Your task to perform on an android device: check battery use Image 0: 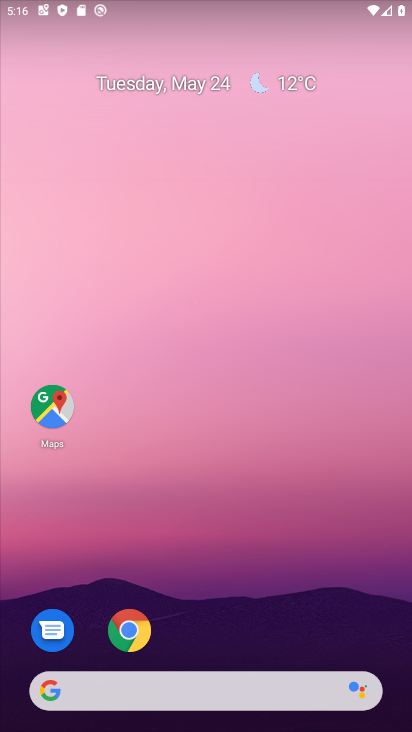
Step 0: press home button
Your task to perform on an android device: check battery use Image 1: 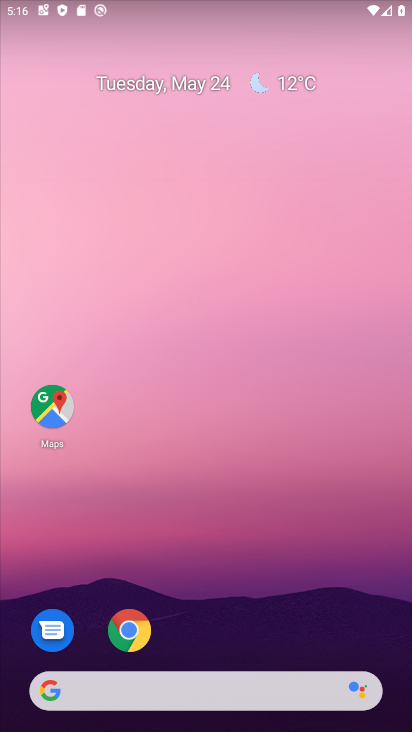
Step 1: drag from (193, 623) to (262, 4)
Your task to perform on an android device: check battery use Image 2: 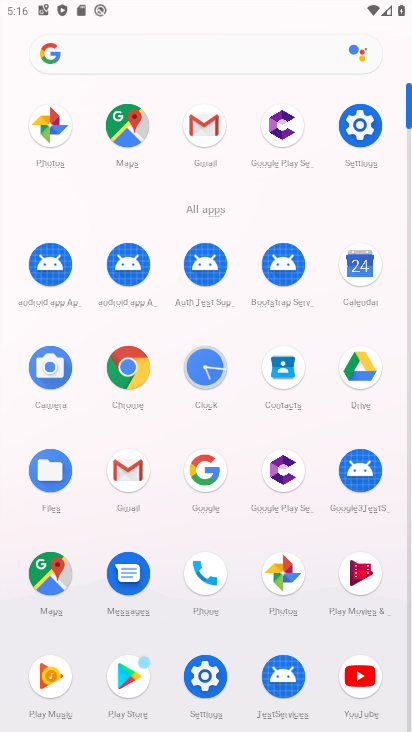
Step 2: click (361, 167)
Your task to perform on an android device: check battery use Image 3: 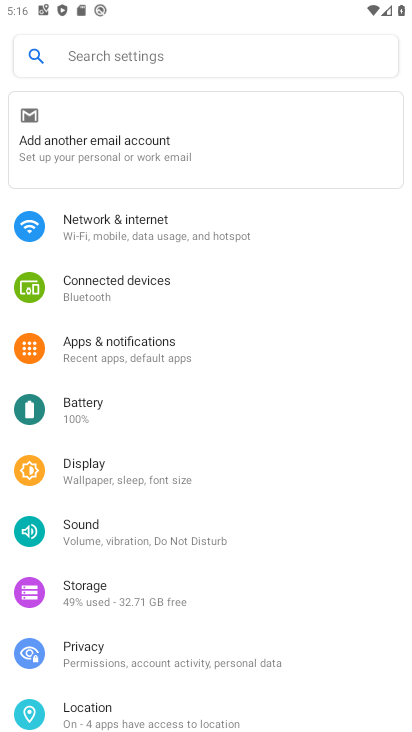
Step 3: click (99, 423)
Your task to perform on an android device: check battery use Image 4: 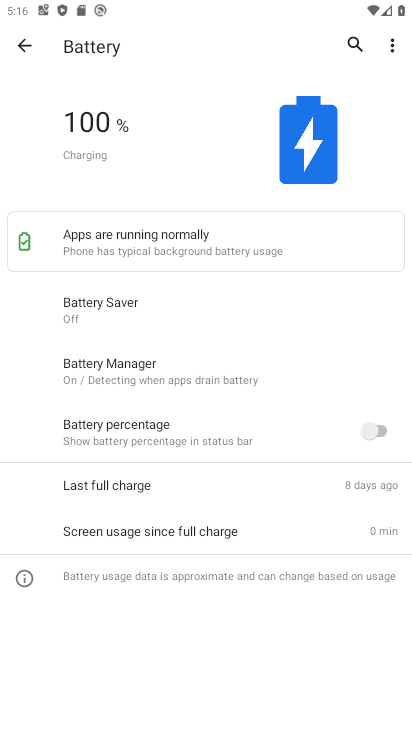
Step 4: task complete